Your task to perform on an android device: Open ESPN.com Image 0: 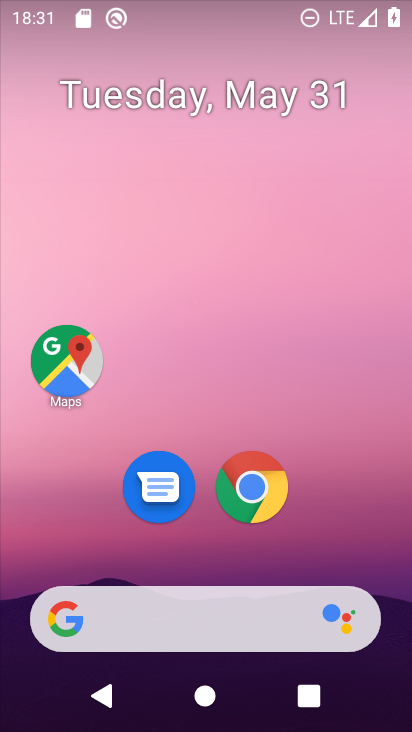
Step 0: click (253, 487)
Your task to perform on an android device: Open ESPN.com Image 1: 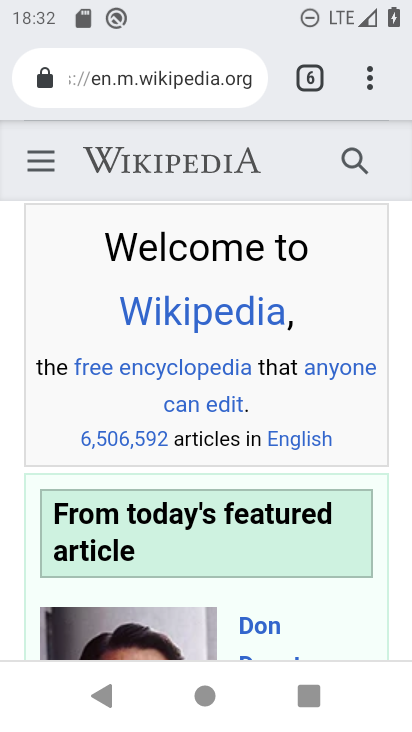
Step 1: click (371, 74)
Your task to perform on an android device: Open ESPN.com Image 2: 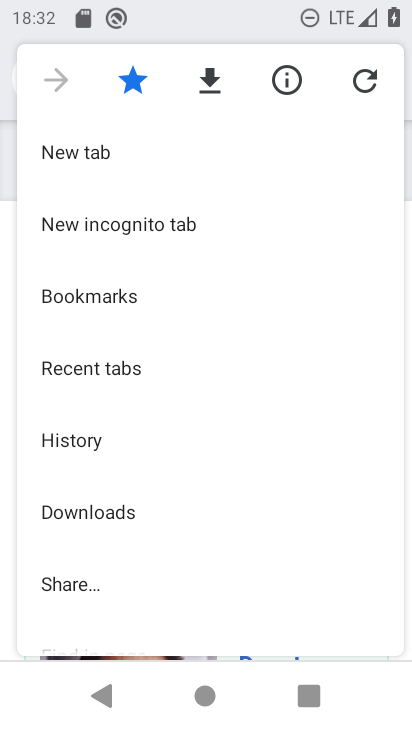
Step 2: click (99, 147)
Your task to perform on an android device: Open ESPN.com Image 3: 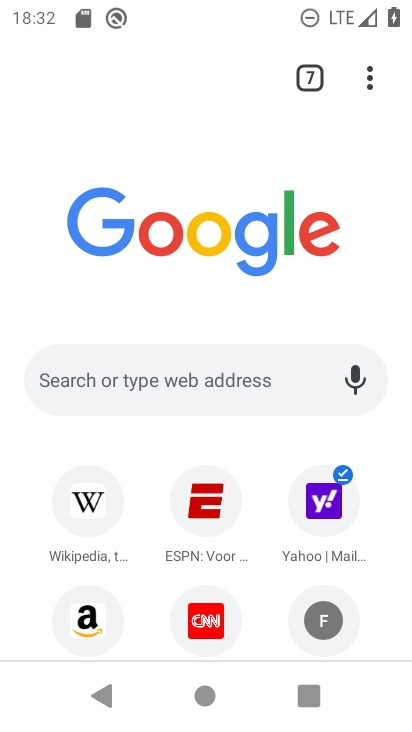
Step 3: click (198, 514)
Your task to perform on an android device: Open ESPN.com Image 4: 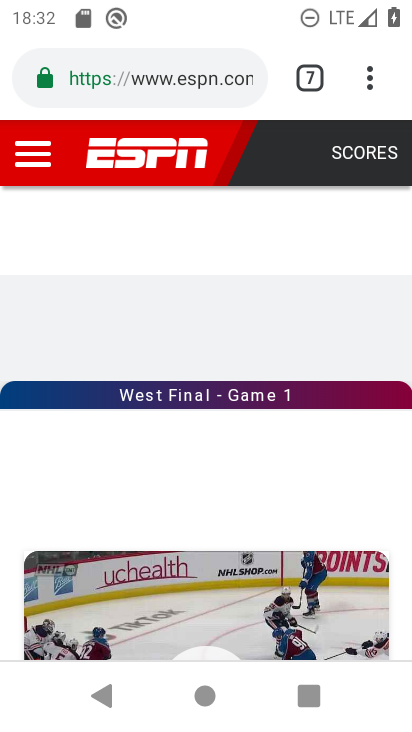
Step 4: task complete